Your task to perform on an android device: Open settings Image 0: 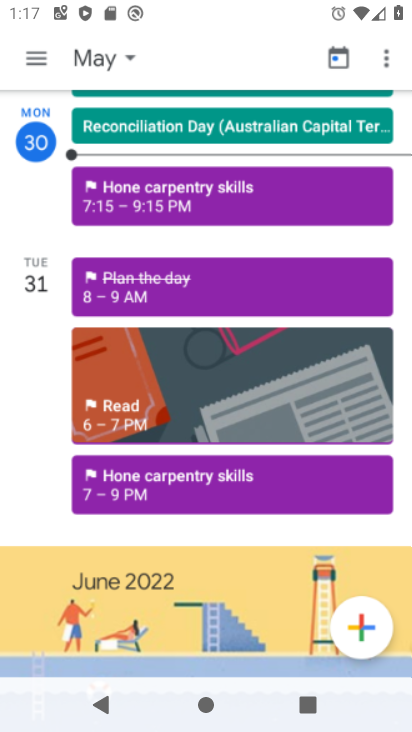
Step 0: press home button
Your task to perform on an android device: Open settings Image 1: 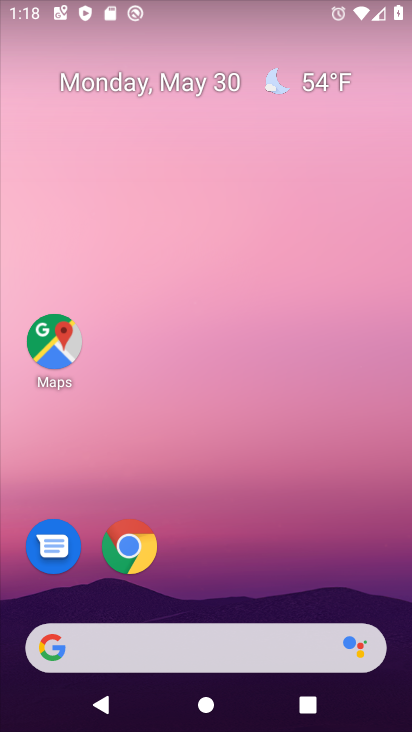
Step 1: drag from (319, 603) to (331, 49)
Your task to perform on an android device: Open settings Image 2: 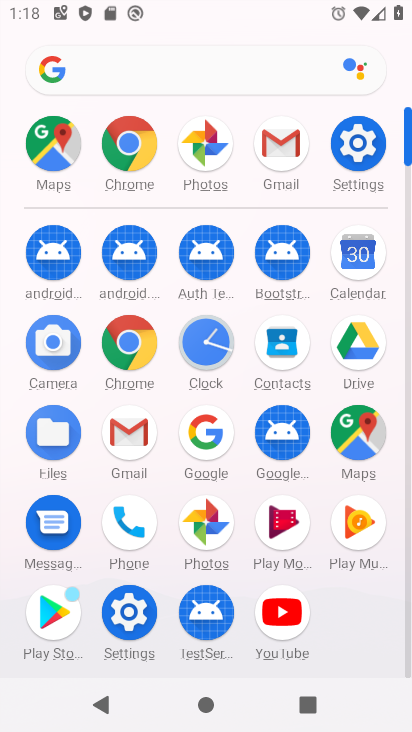
Step 2: click (364, 159)
Your task to perform on an android device: Open settings Image 3: 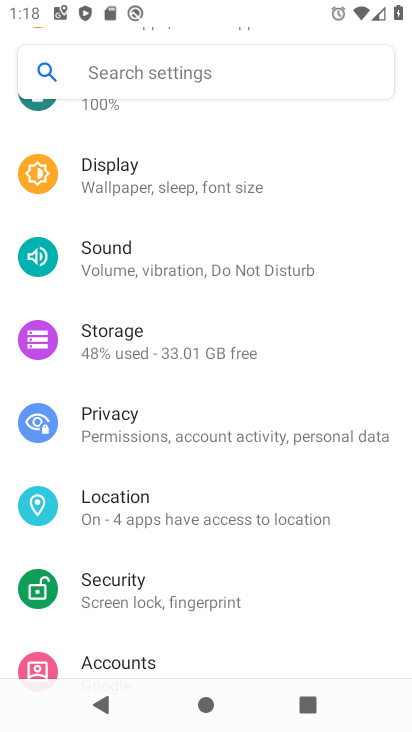
Step 3: task complete